Your task to perform on an android device: change the clock display to digital Image 0: 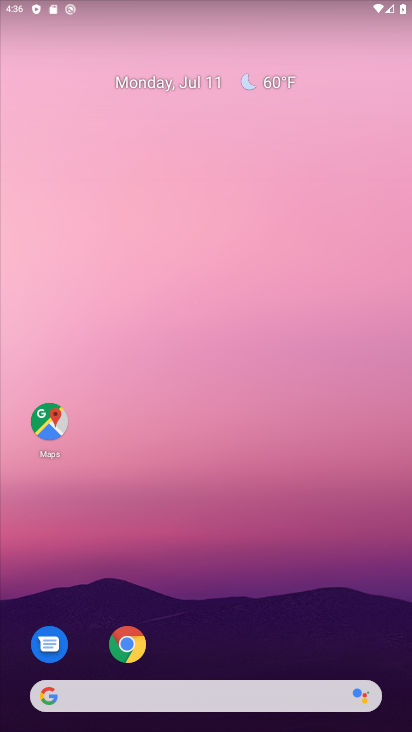
Step 0: drag from (168, 681) to (287, 274)
Your task to perform on an android device: change the clock display to digital Image 1: 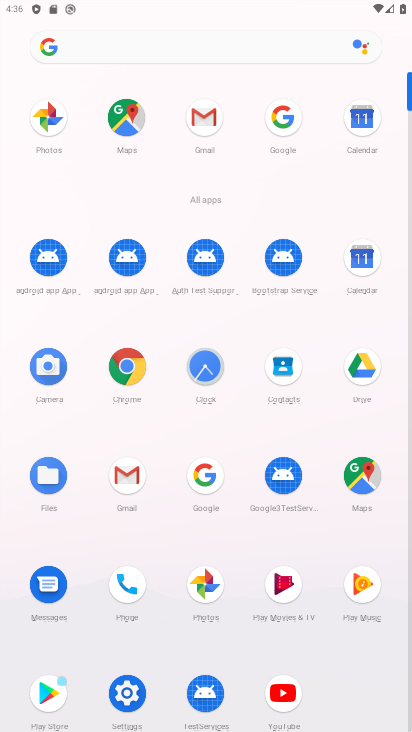
Step 1: click (209, 365)
Your task to perform on an android device: change the clock display to digital Image 2: 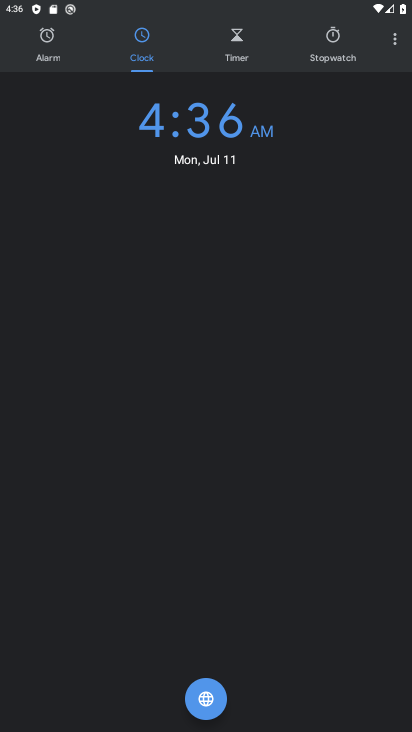
Step 2: click (396, 39)
Your task to perform on an android device: change the clock display to digital Image 3: 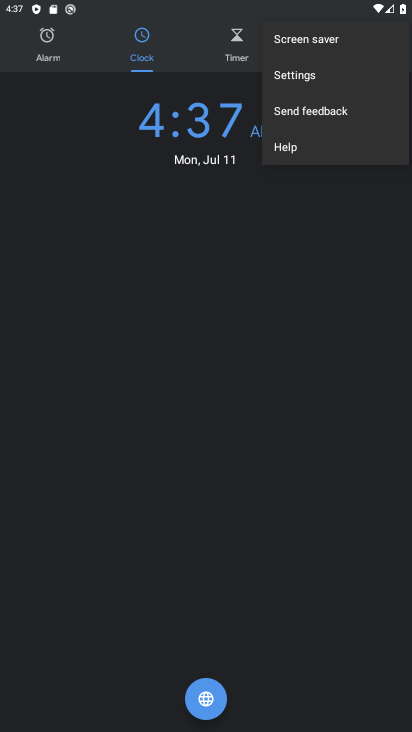
Step 3: click (303, 78)
Your task to perform on an android device: change the clock display to digital Image 4: 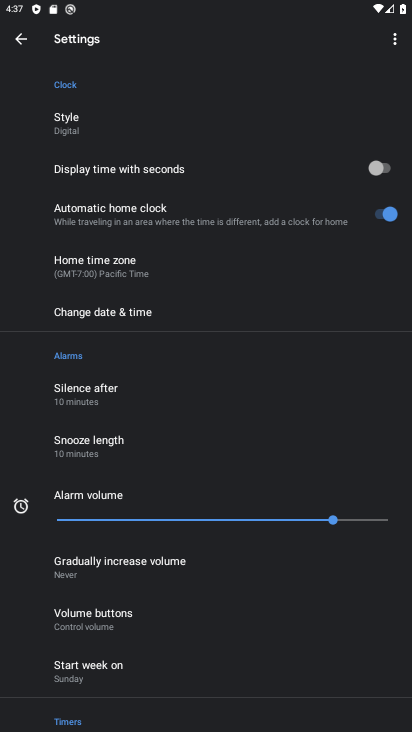
Step 4: click (73, 130)
Your task to perform on an android device: change the clock display to digital Image 5: 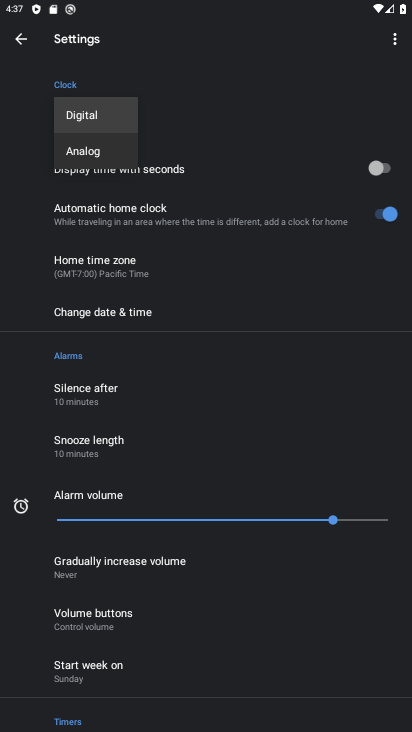
Step 5: click (86, 116)
Your task to perform on an android device: change the clock display to digital Image 6: 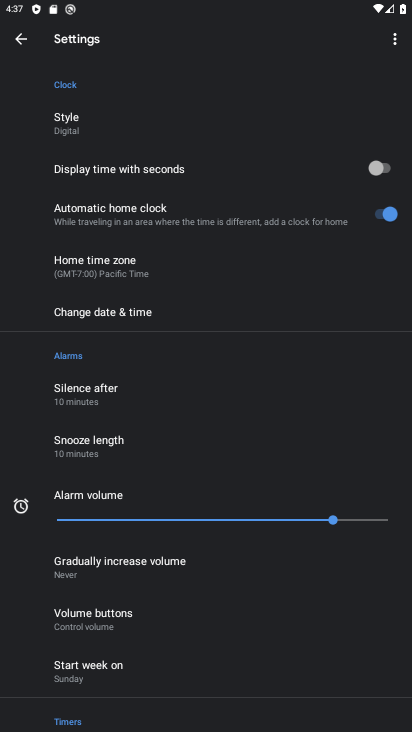
Step 6: task complete